Your task to perform on an android device: Search for vegetarian restaurants on Maps Image 0: 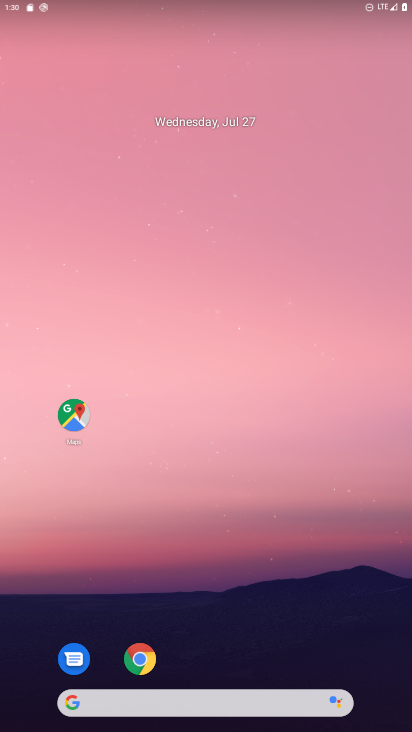
Step 0: click (72, 424)
Your task to perform on an android device: Search for vegetarian restaurants on Maps Image 1: 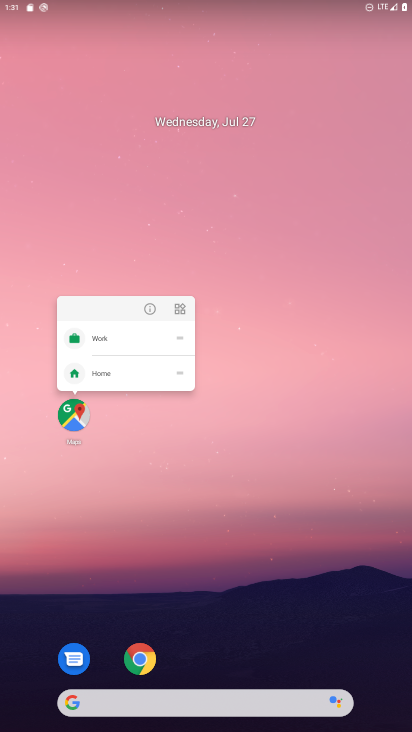
Step 1: click (70, 420)
Your task to perform on an android device: Search for vegetarian restaurants on Maps Image 2: 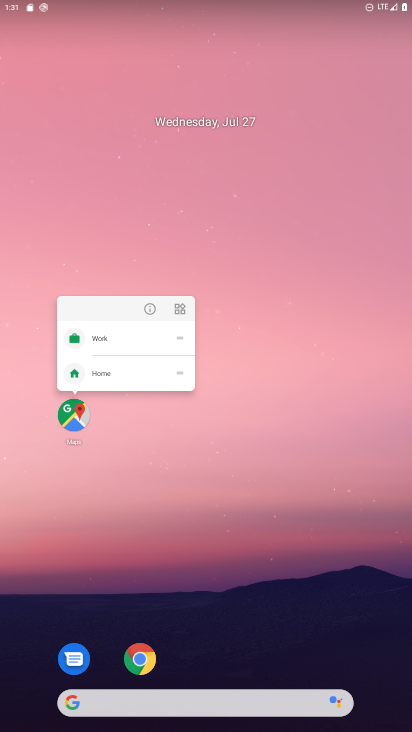
Step 2: click (68, 432)
Your task to perform on an android device: Search for vegetarian restaurants on Maps Image 3: 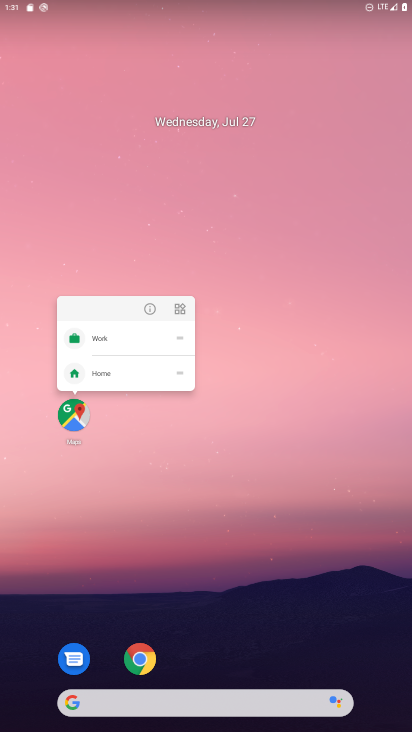
Step 3: click (90, 416)
Your task to perform on an android device: Search for vegetarian restaurants on Maps Image 4: 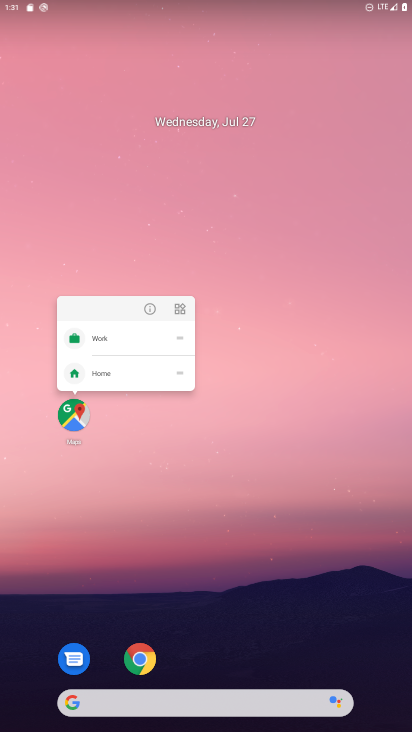
Step 4: click (81, 426)
Your task to perform on an android device: Search for vegetarian restaurants on Maps Image 5: 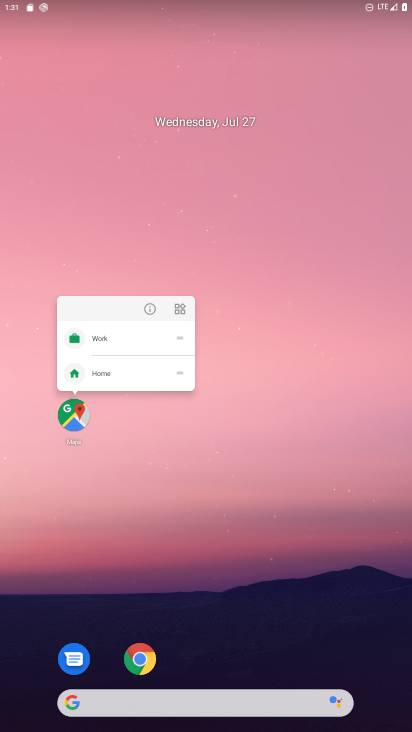
Step 5: click (256, 297)
Your task to perform on an android device: Search for vegetarian restaurants on Maps Image 6: 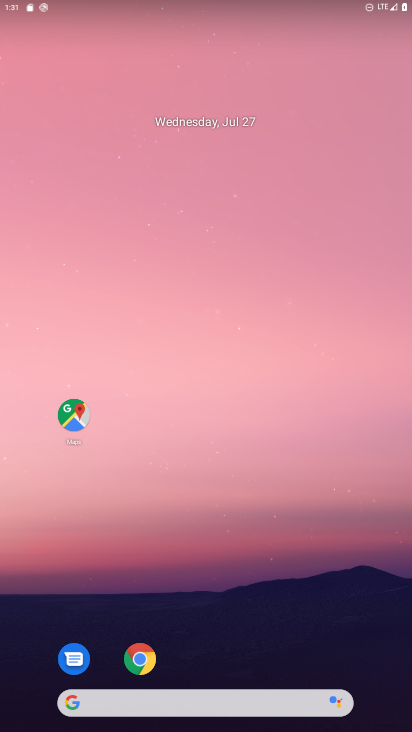
Step 6: click (74, 412)
Your task to perform on an android device: Search for vegetarian restaurants on Maps Image 7: 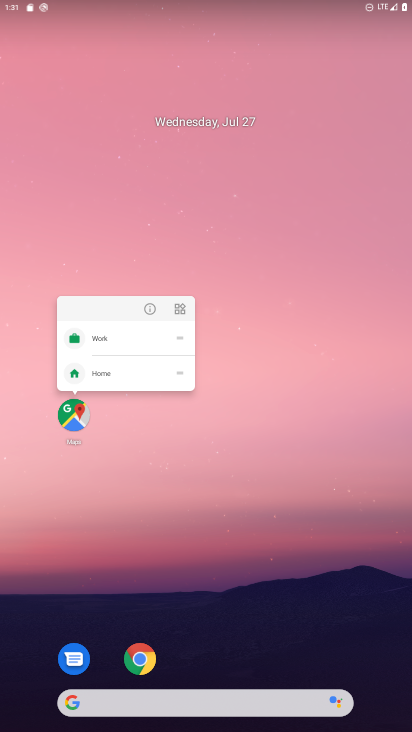
Step 7: click (106, 371)
Your task to perform on an android device: Search for vegetarian restaurants on Maps Image 8: 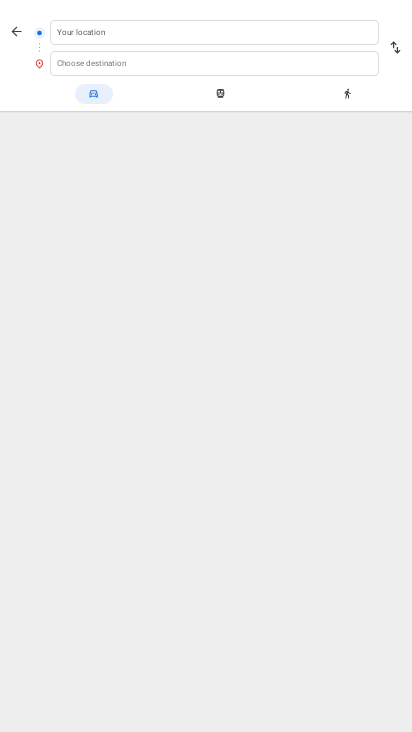
Step 8: click (13, 26)
Your task to perform on an android device: Search for vegetarian restaurants on Maps Image 9: 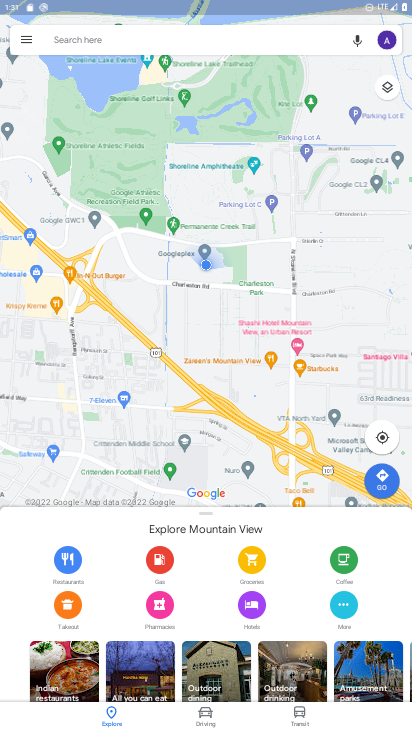
Step 9: click (71, 561)
Your task to perform on an android device: Search for vegetarian restaurants on Maps Image 10: 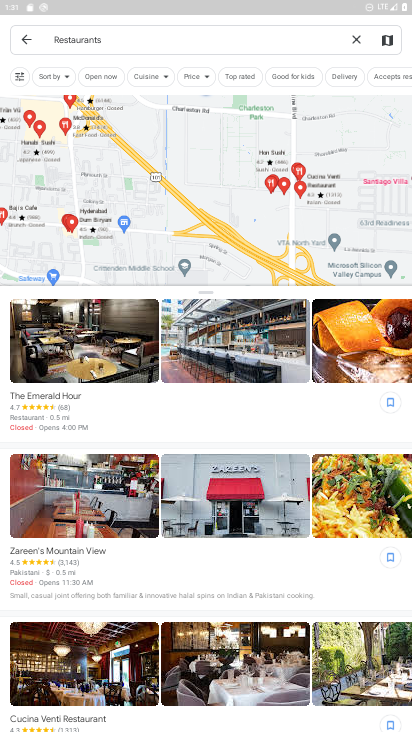
Step 10: click (53, 39)
Your task to perform on an android device: Search for vegetarian restaurants on Maps Image 11: 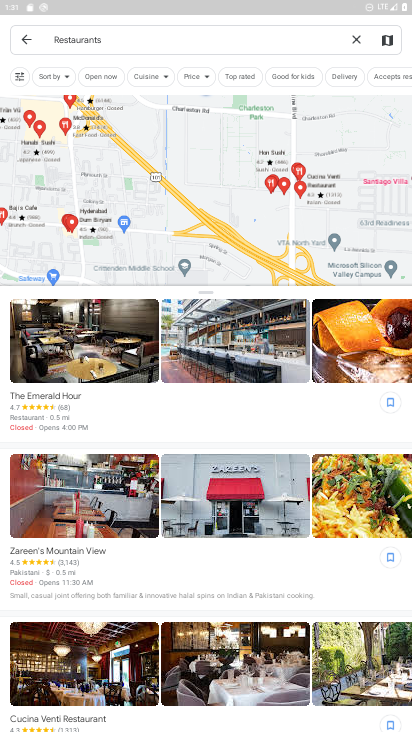
Step 11: click (56, 34)
Your task to perform on an android device: Search for vegetarian restaurants on Maps Image 12: 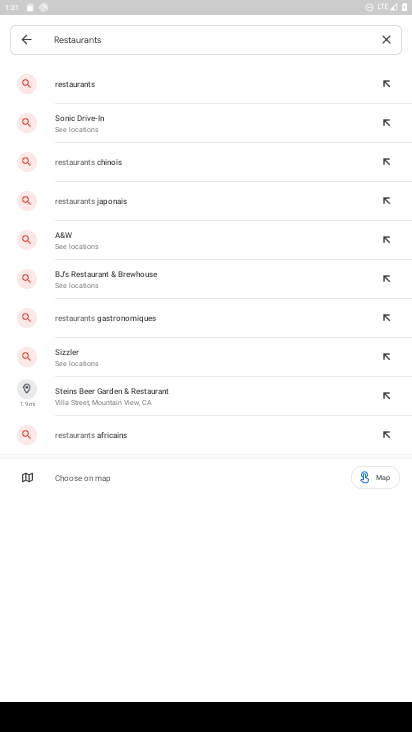
Step 12: click (385, 41)
Your task to perform on an android device: Search for vegetarian restaurants on Maps Image 13: 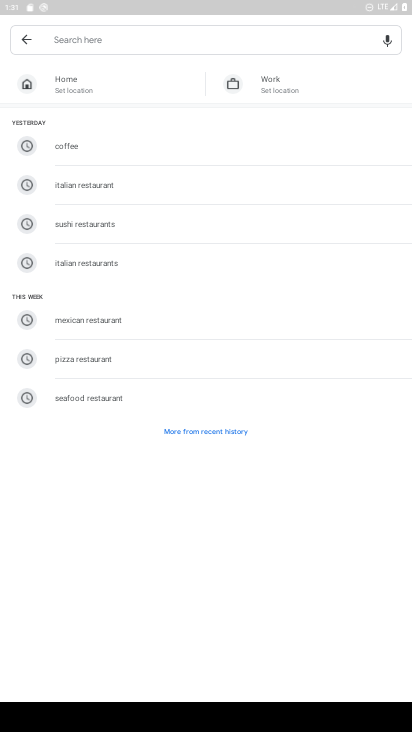
Step 13: type "vegetarian restaurants"
Your task to perform on an android device: Search for vegetarian restaurants on Maps Image 14: 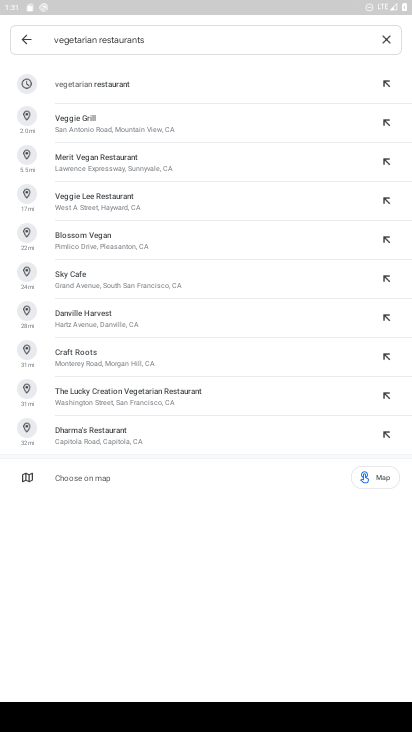
Step 14: click (114, 87)
Your task to perform on an android device: Search for vegetarian restaurants on Maps Image 15: 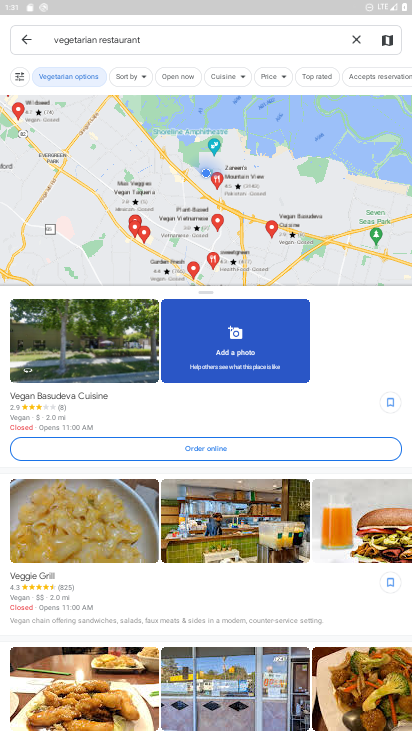
Step 15: task complete